Your task to perform on an android device: Open Chrome and go to settings Image 0: 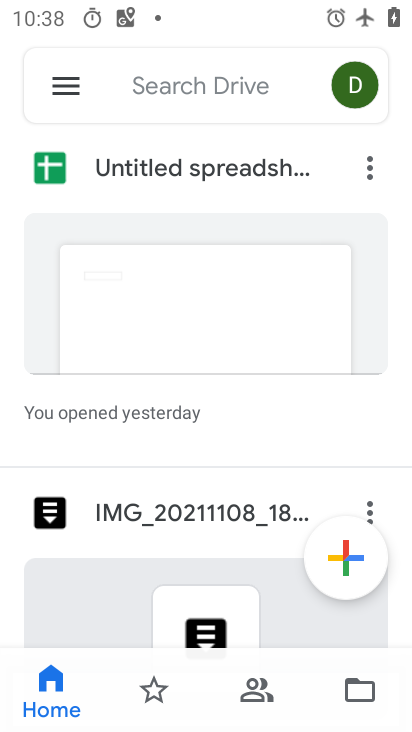
Step 0: press home button
Your task to perform on an android device: Open Chrome and go to settings Image 1: 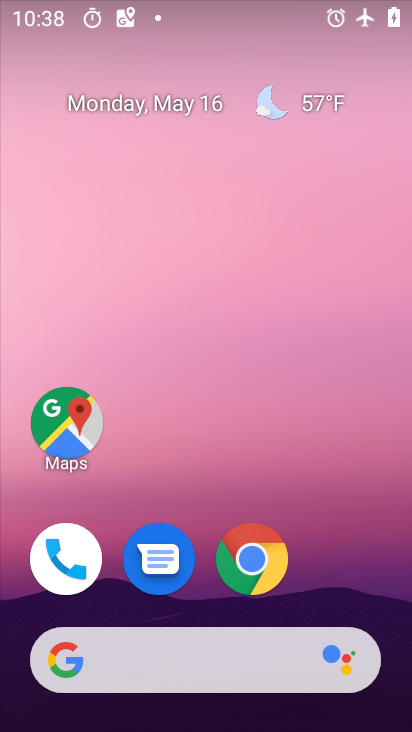
Step 1: click (258, 561)
Your task to perform on an android device: Open Chrome and go to settings Image 2: 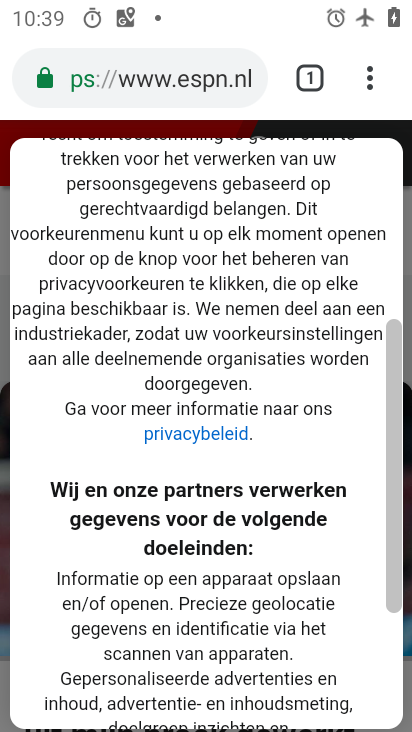
Step 2: task complete